Your task to perform on an android device: check android version Image 0: 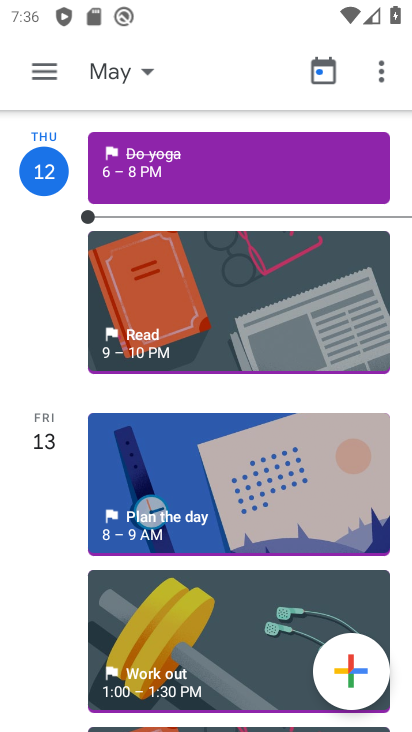
Step 0: press home button
Your task to perform on an android device: check android version Image 1: 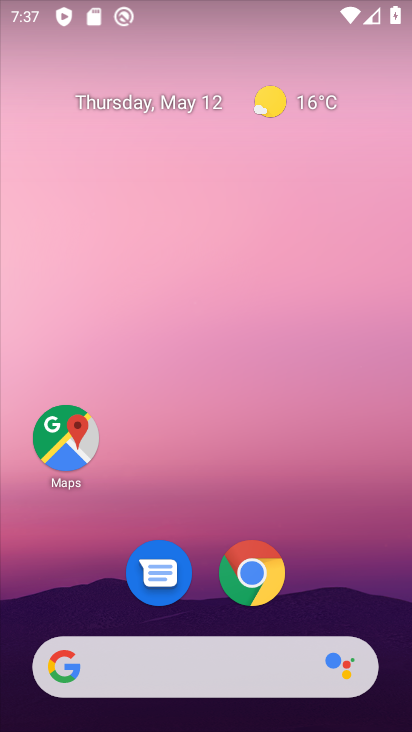
Step 1: drag from (61, 589) to (134, 155)
Your task to perform on an android device: check android version Image 2: 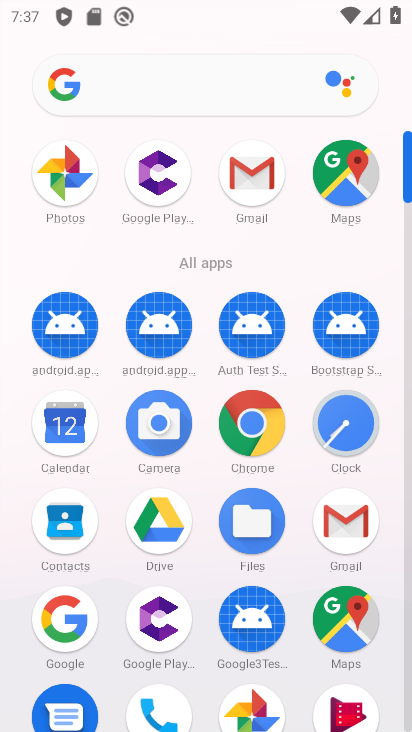
Step 2: drag from (211, 590) to (274, 276)
Your task to perform on an android device: check android version Image 3: 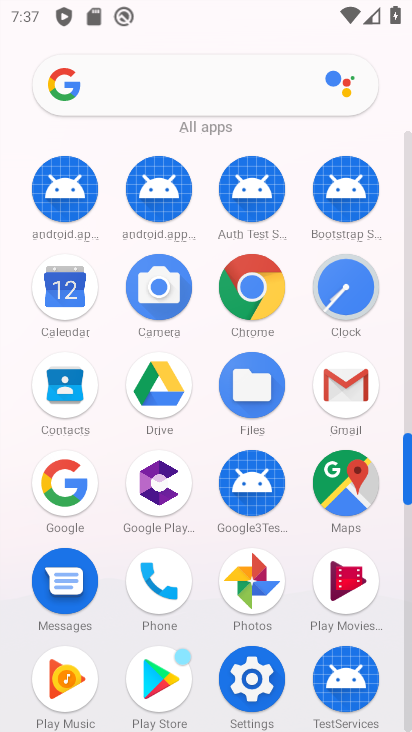
Step 3: click (247, 665)
Your task to perform on an android device: check android version Image 4: 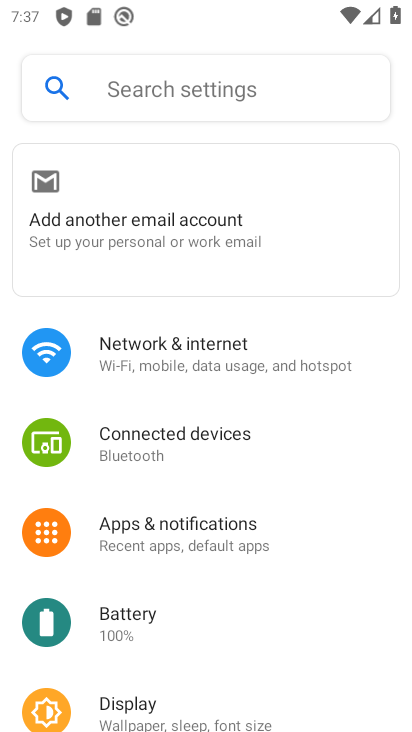
Step 4: drag from (247, 665) to (298, 15)
Your task to perform on an android device: check android version Image 5: 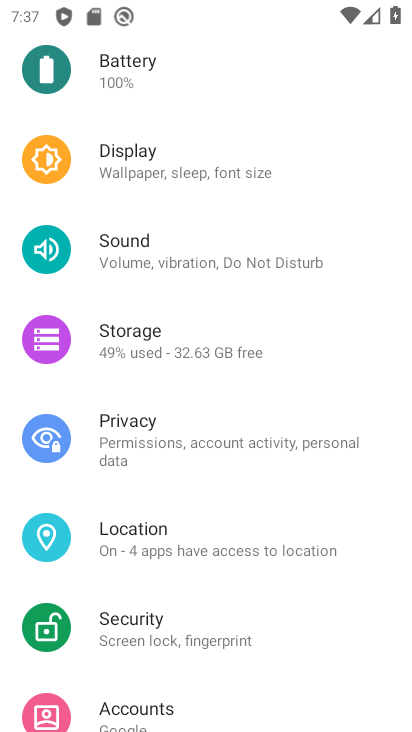
Step 5: drag from (246, 471) to (293, 4)
Your task to perform on an android device: check android version Image 6: 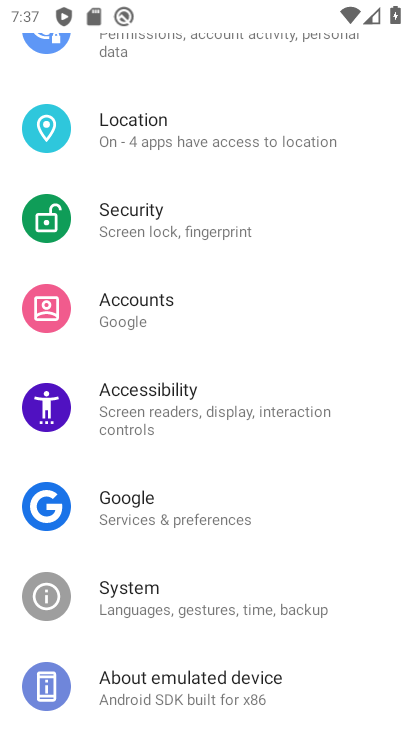
Step 6: click (226, 678)
Your task to perform on an android device: check android version Image 7: 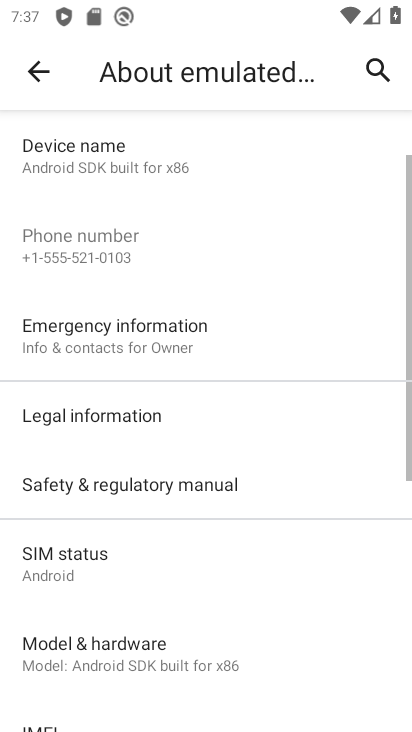
Step 7: drag from (261, 631) to (287, 442)
Your task to perform on an android device: check android version Image 8: 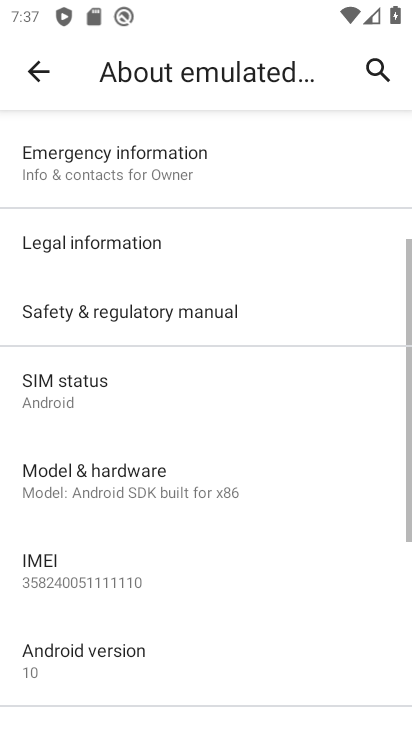
Step 8: click (85, 669)
Your task to perform on an android device: check android version Image 9: 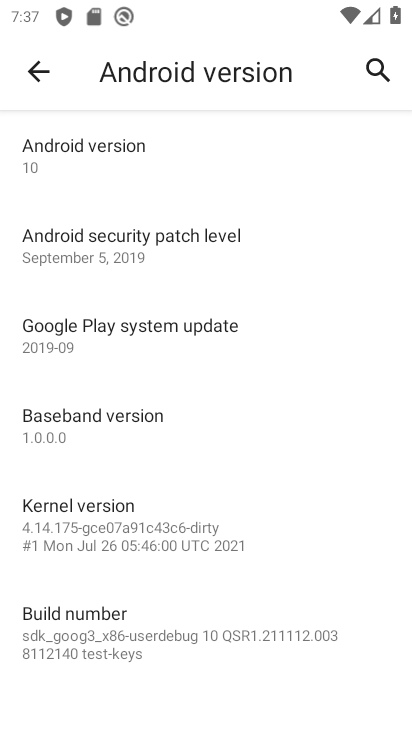
Step 9: task complete